Your task to perform on an android device: turn on priority inbox in the gmail app Image 0: 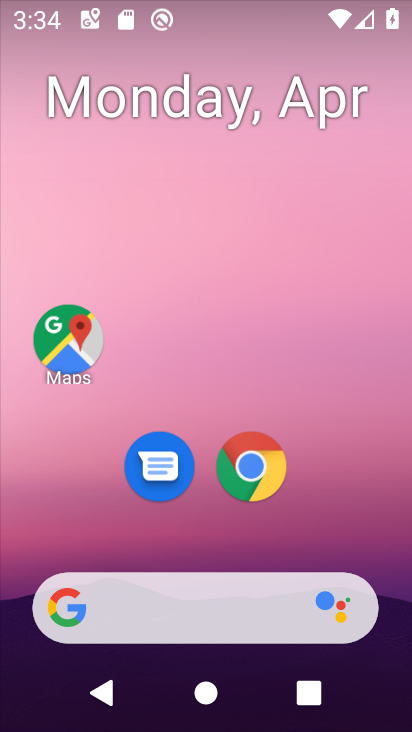
Step 0: drag from (313, 529) to (304, 196)
Your task to perform on an android device: turn on priority inbox in the gmail app Image 1: 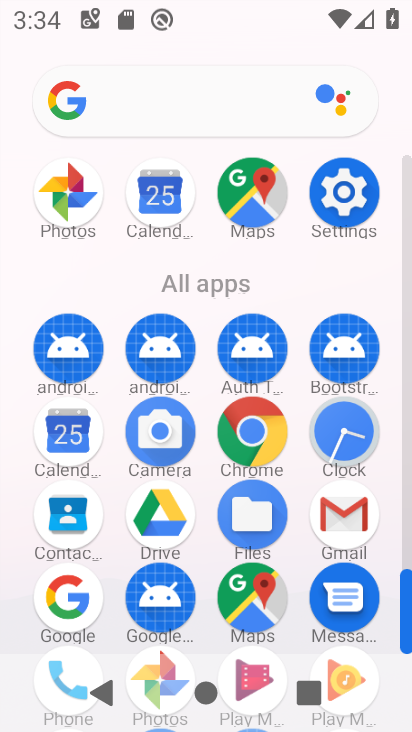
Step 1: click (347, 527)
Your task to perform on an android device: turn on priority inbox in the gmail app Image 2: 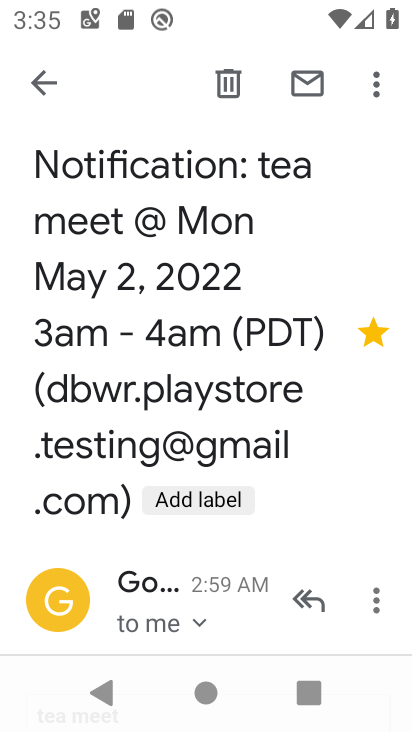
Step 2: click (59, 86)
Your task to perform on an android device: turn on priority inbox in the gmail app Image 3: 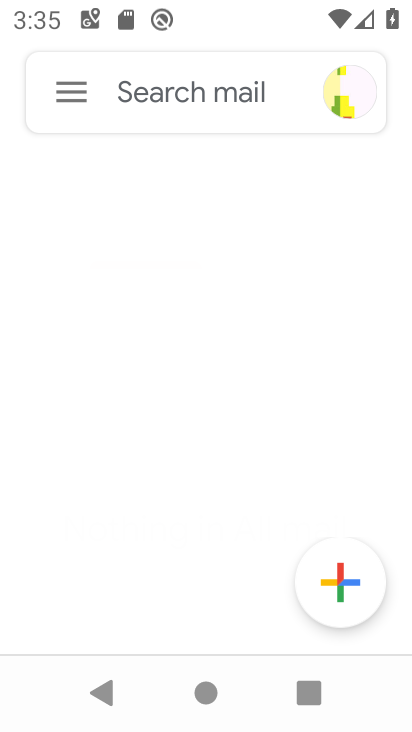
Step 3: click (70, 104)
Your task to perform on an android device: turn on priority inbox in the gmail app Image 4: 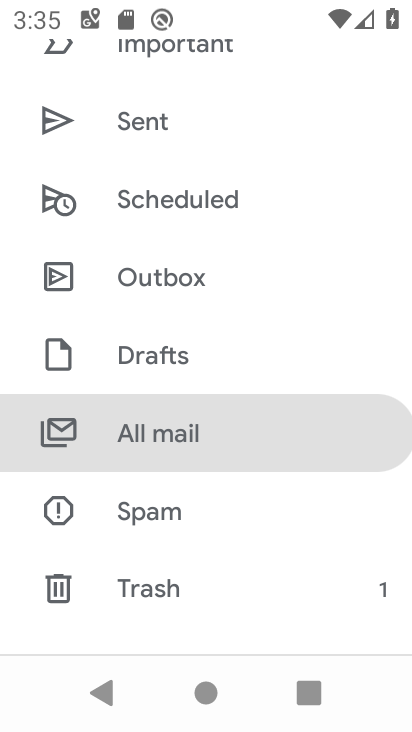
Step 4: drag from (91, 550) to (132, 201)
Your task to perform on an android device: turn on priority inbox in the gmail app Image 5: 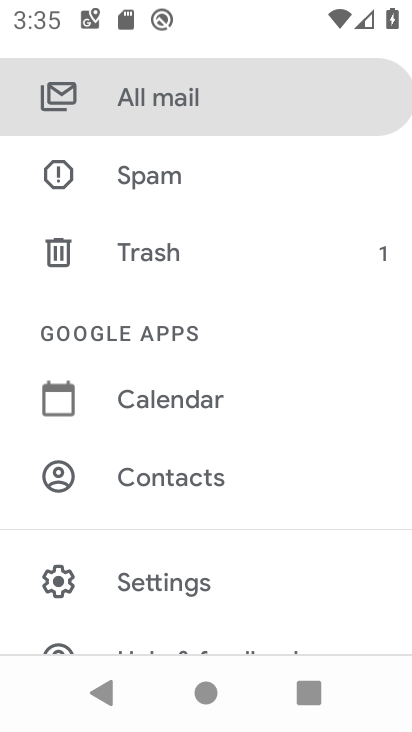
Step 5: drag from (96, 510) to (115, 228)
Your task to perform on an android device: turn on priority inbox in the gmail app Image 6: 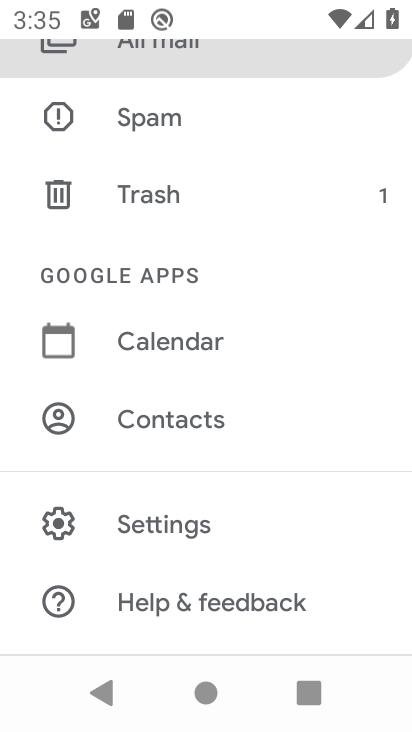
Step 6: click (165, 527)
Your task to perform on an android device: turn on priority inbox in the gmail app Image 7: 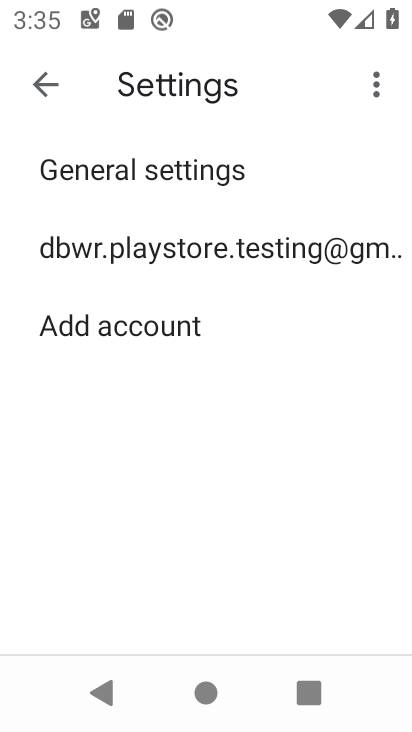
Step 7: click (198, 247)
Your task to perform on an android device: turn on priority inbox in the gmail app Image 8: 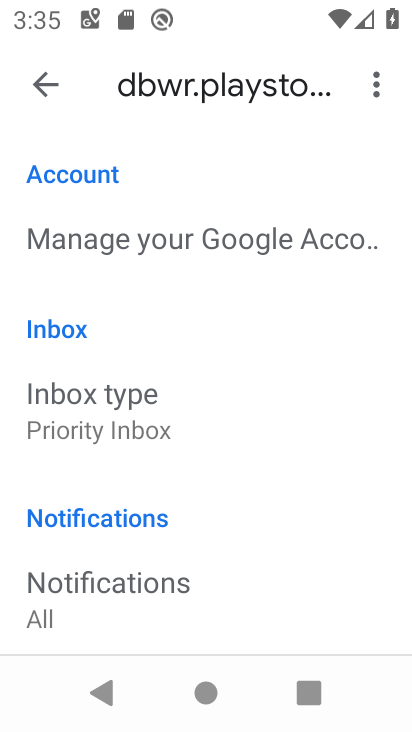
Step 8: task complete